Your task to perform on an android device: visit the assistant section in the google photos Image 0: 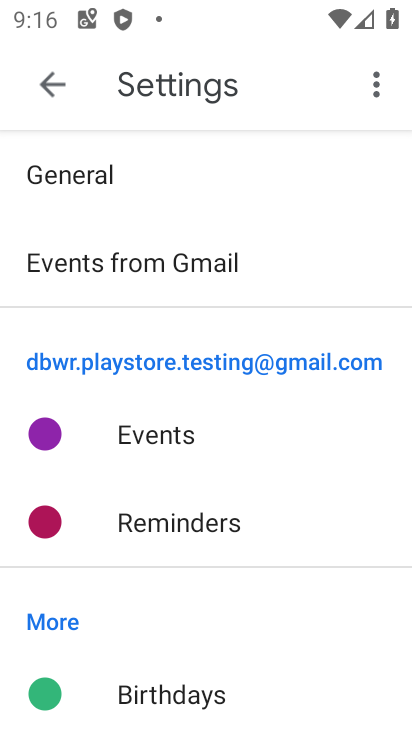
Step 0: press back button
Your task to perform on an android device: visit the assistant section in the google photos Image 1: 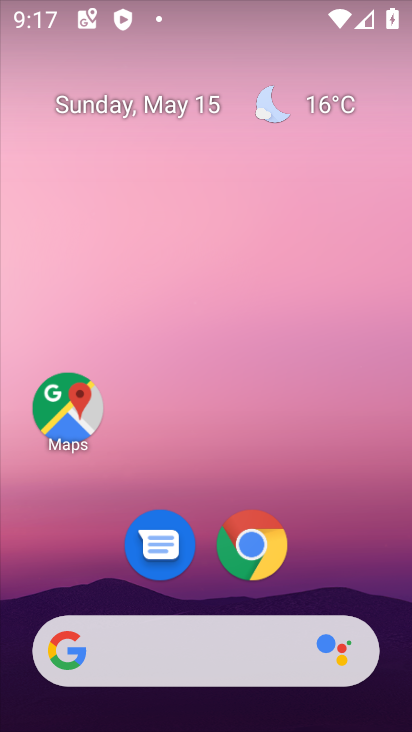
Step 1: drag from (339, 581) to (223, 172)
Your task to perform on an android device: visit the assistant section in the google photos Image 2: 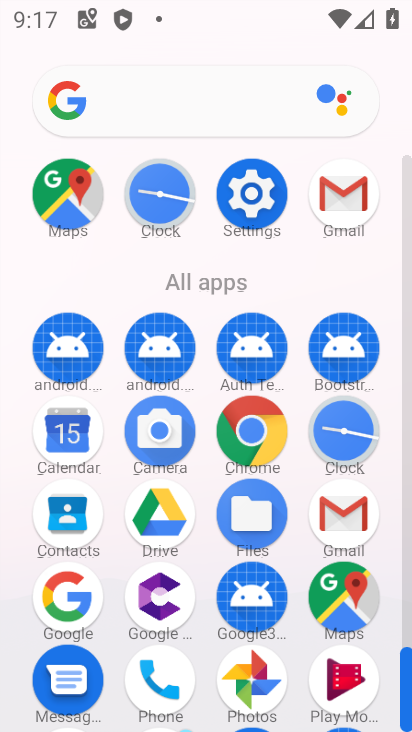
Step 2: drag from (298, 636) to (290, 347)
Your task to perform on an android device: visit the assistant section in the google photos Image 3: 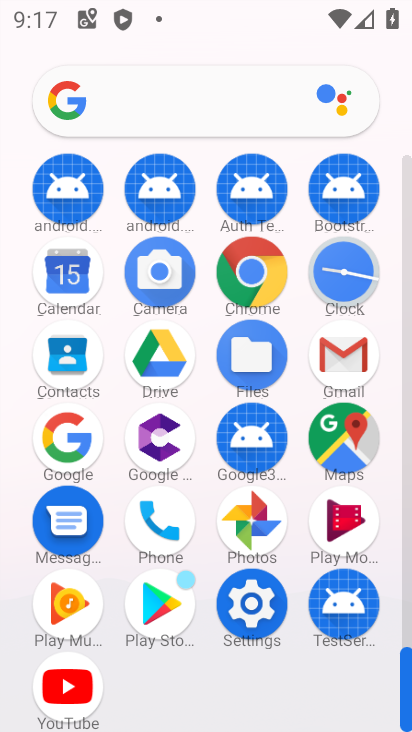
Step 3: click (254, 520)
Your task to perform on an android device: visit the assistant section in the google photos Image 4: 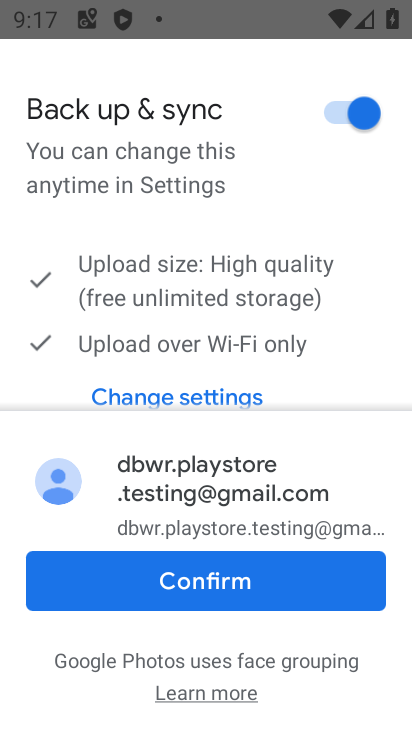
Step 4: click (201, 582)
Your task to perform on an android device: visit the assistant section in the google photos Image 5: 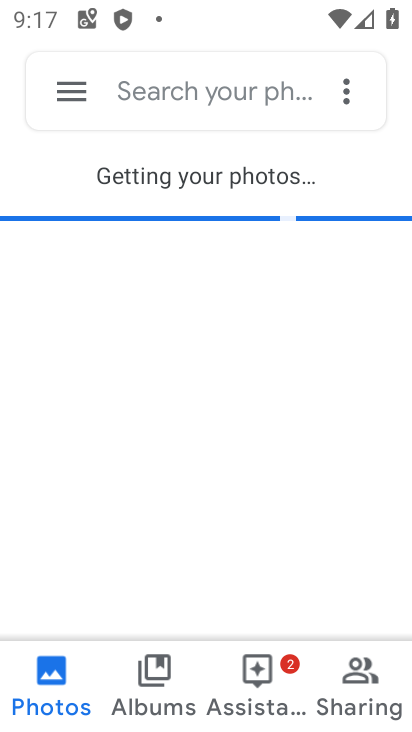
Step 5: click (261, 677)
Your task to perform on an android device: visit the assistant section in the google photos Image 6: 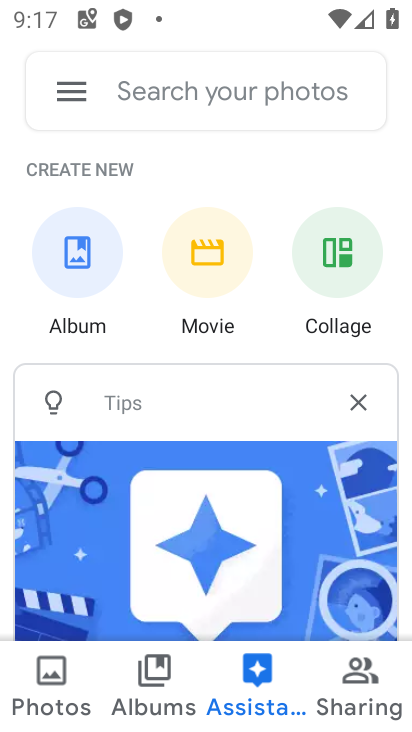
Step 6: task complete